Your task to perform on an android device: Open the calendar app, open the side menu, and click the "Day" option Image 0: 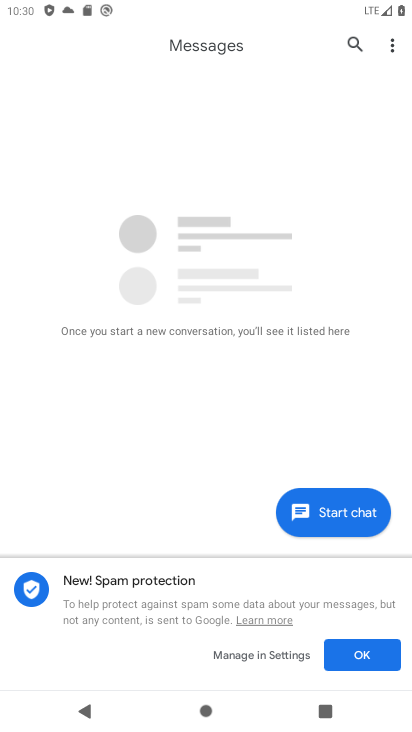
Step 0: press home button
Your task to perform on an android device: Open the calendar app, open the side menu, and click the "Day" option Image 1: 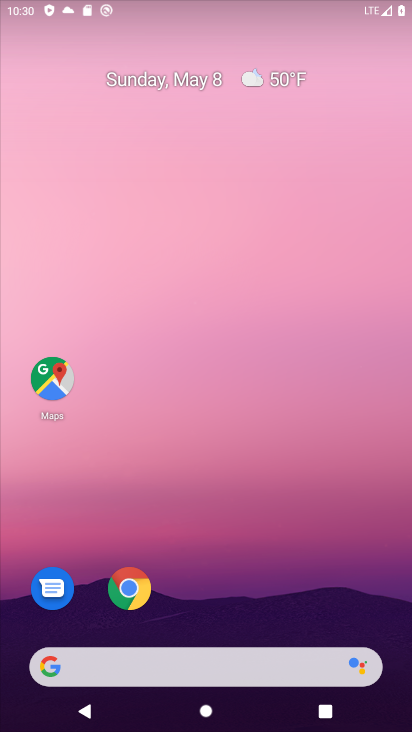
Step 1: drag from (268, 578) to (262, 66)
Your task to perform on an android device: Open the calendar app, open the side menu, and click the "Day" option Image 2: 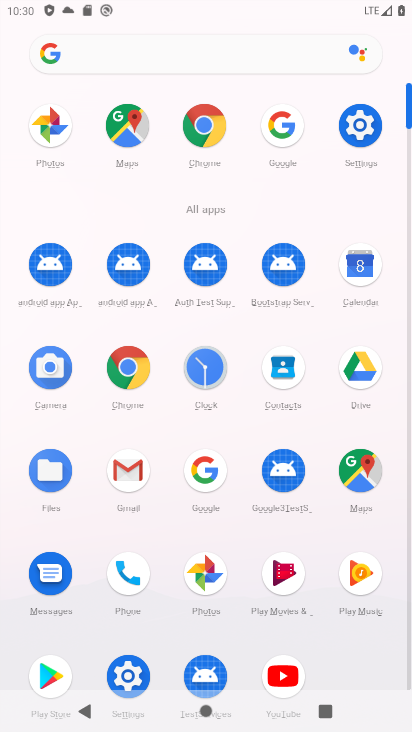
Step 2: click (361, 262)
Your task to perform on an android device: Open the calendar app, open the side menu, and click the "Day" option Image 3: 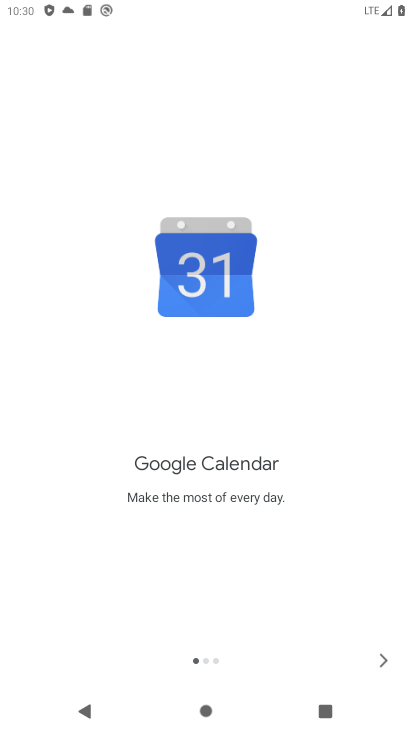
Step 3: click (377, 660)
Your task to perform on an android device: Open the calendar app, open the side menu, and click the "Day" option Image 4: 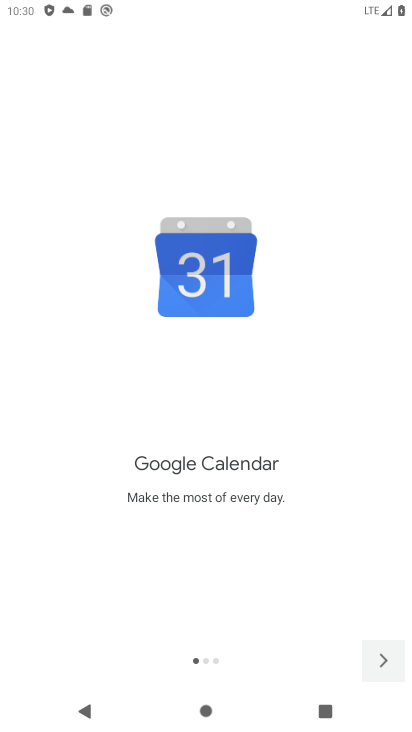
Step 4: click (377, 655)
Your task to perform on an android device: Open the calendar app, open the side menu, and click the "Day" option Image 5: 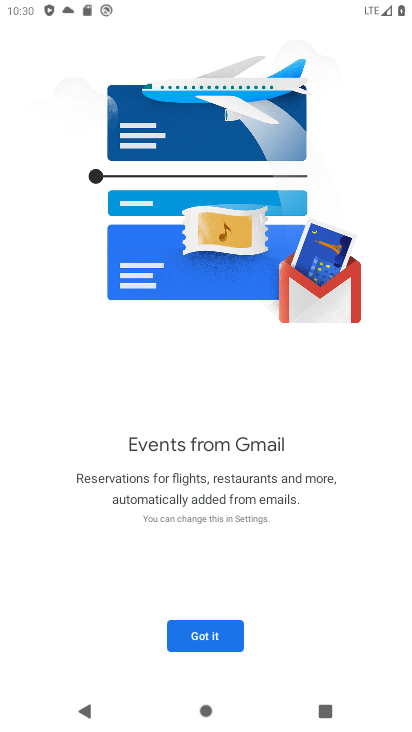
Step 5: click (224, 649)
Your task to perform on an android device: Open the calendar app, open the side menu, and click the "Day" option Image 6: 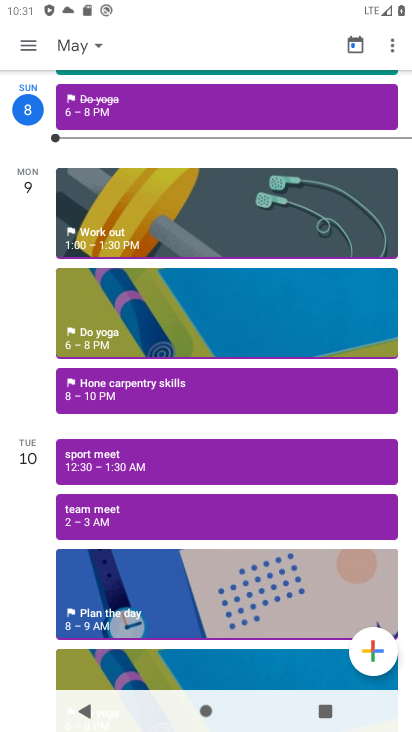
Step 6: click (30, 47)
Your task to perform on an android device: Open the calendar app, open the side menu, and click the "Day" option Image 7: 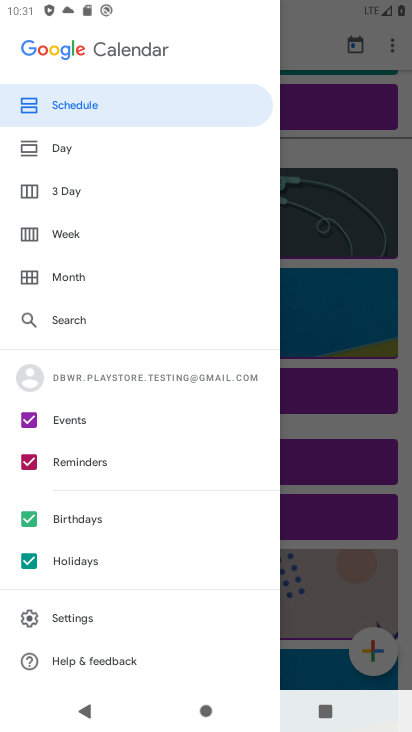
Step 7: click (101, 151)
Your task to perform on an android device: Open the calendar app, open the side menu, and click the "Day" option Image 8: 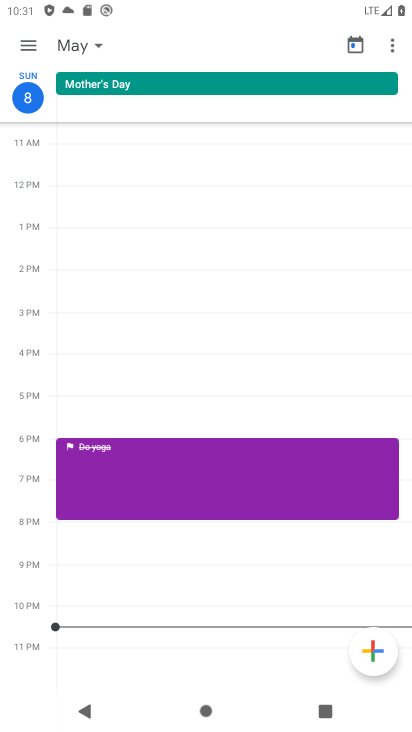
Step 8: task complete